Your task to perform on an android device: Set the phone to "Do not disturb". Image 0: 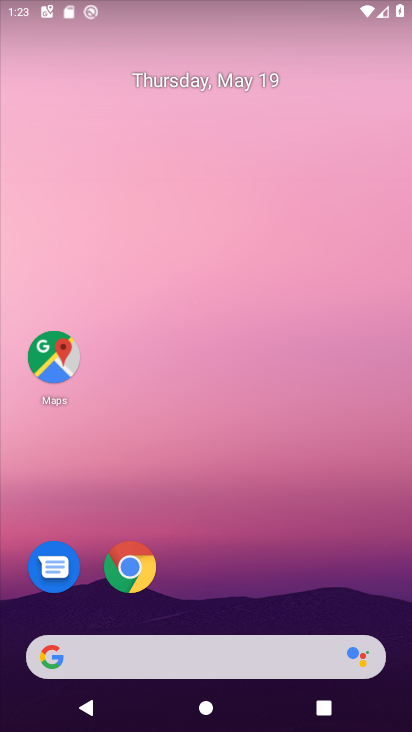
Step 0: drag from (179, 518) to (194, 73)
Your task to perform on an android device: Set the phone to "Do not disturb". Image 1: 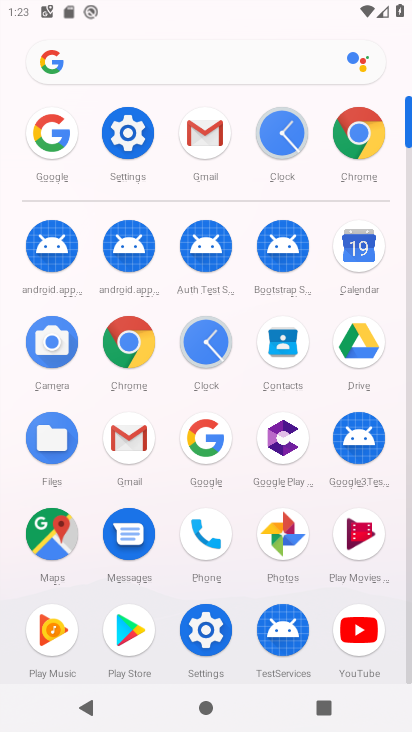
Step 1: click (134, 136)
Your task to perform on an android device: Set the phone to "Do not disturb". Image 2: 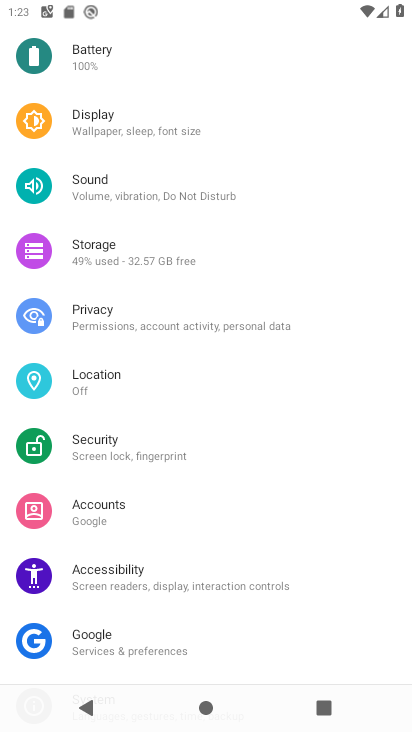
Step 2: click (133, 121)
Your task to perform on an android device: Set the phone to "Do not disturb". Image 3: 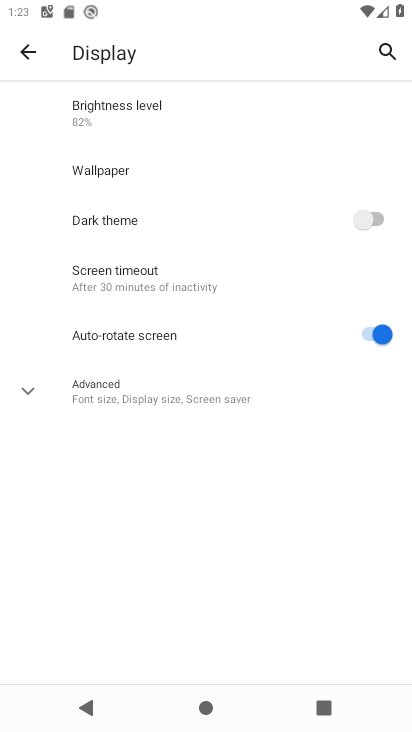
Step 3: click (96, 384)
Your task to perform on an android device: Set the phone to "Do not disturb". Image 4: 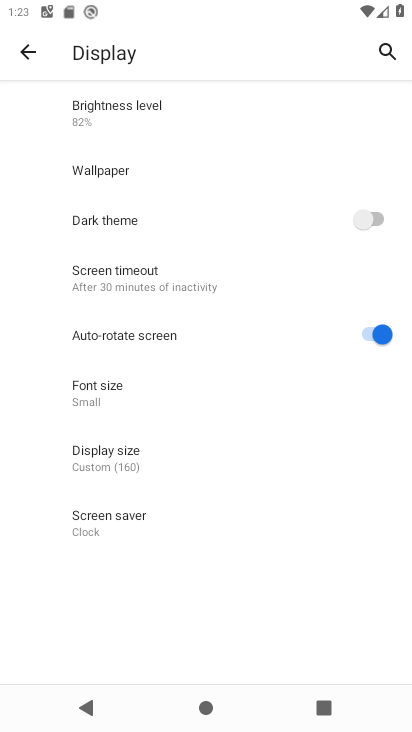
Step 4: press back button
Your task to perform on an android device: Set the phone to "Do not disturb". Image 5: 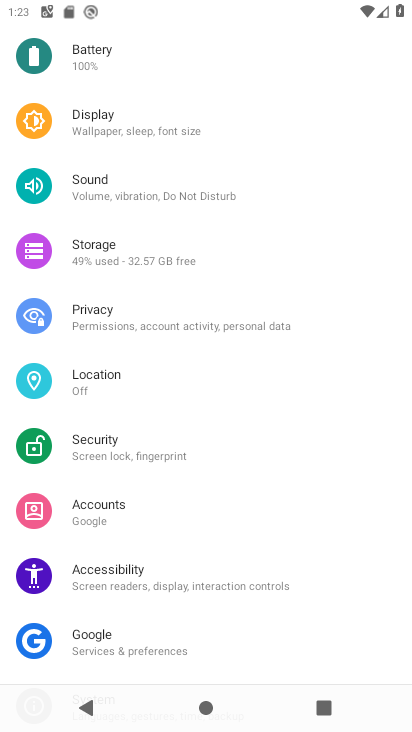
Step 5: drag from (223, 449) to (218, 271)
Your task to perform on an android device: Set the phone to "Do not disturb". Image 6: 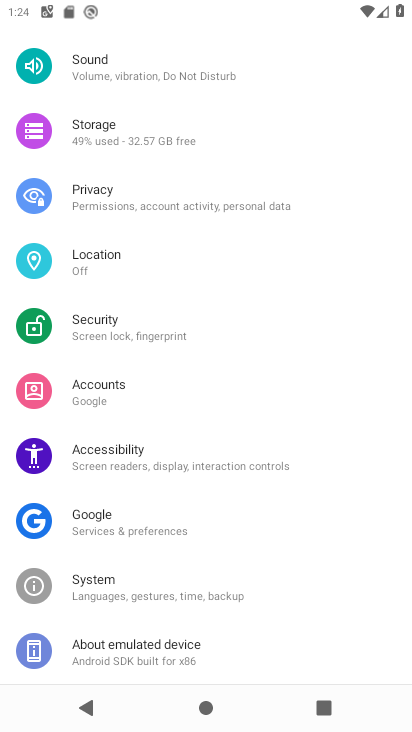
Step 6: drag from (277, 427) to (306, 160)
Your task to perform on an android device: Set the phone to "Do not disturb". Image 7: 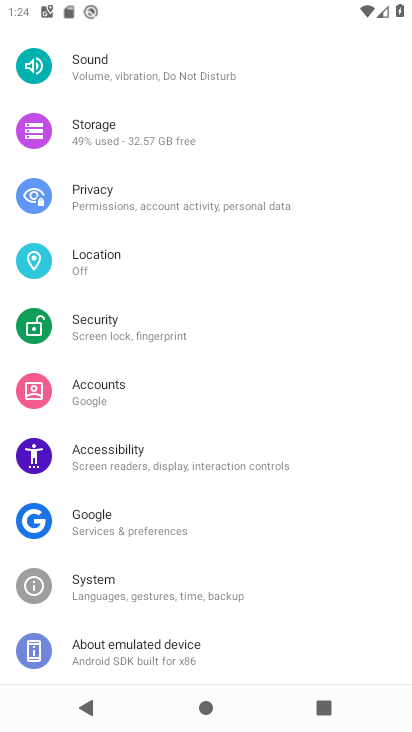
Step 7: drag from (288, 539) to (285, 63)
Your task to perform on an android device: Set the phone to "Do not disturb". Image 8: 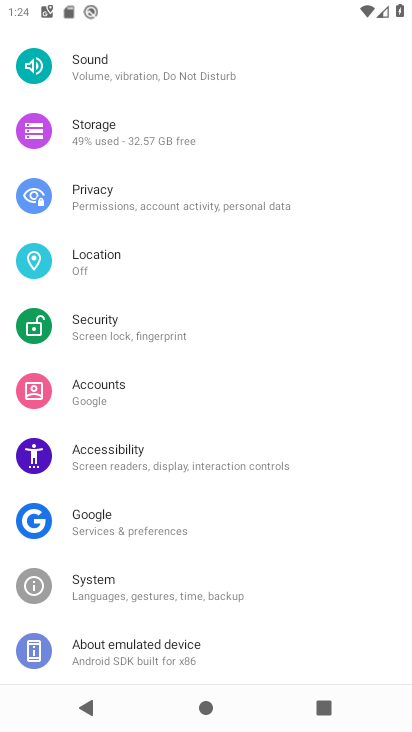
Step 8: drag from (256, 109) to (179, 473)
Your task to perform on an android device: Set the phone to "Do not disturb". Image 9: 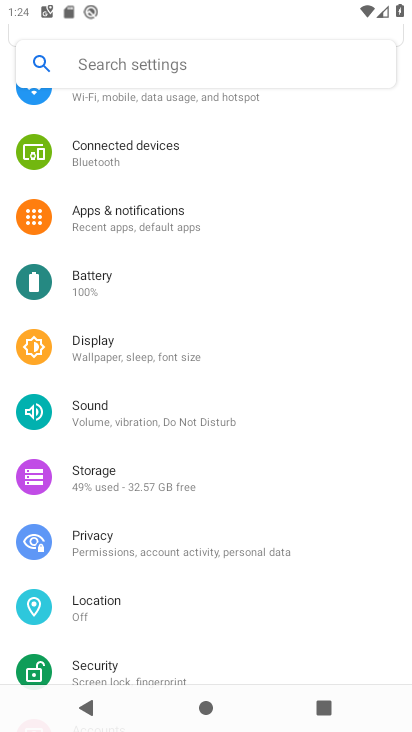
Step 9: click (180, 362)
Your task to perform on an android device: Set the phone to "Do not disturb". Image 10: 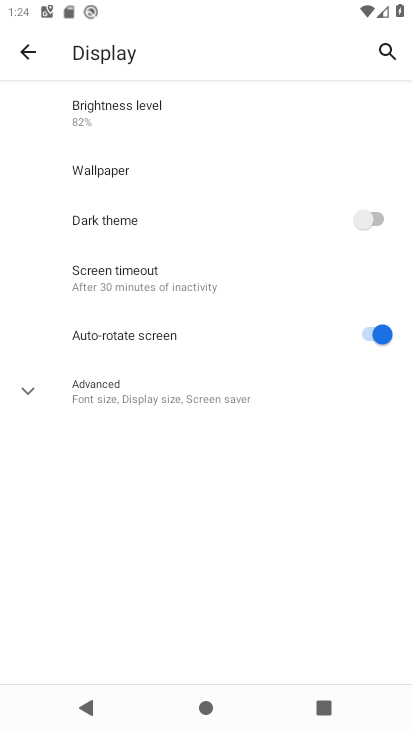
Step 10: press back button
Your task to perform on an android device: Set the phone to "Do not disturb". Image 11: 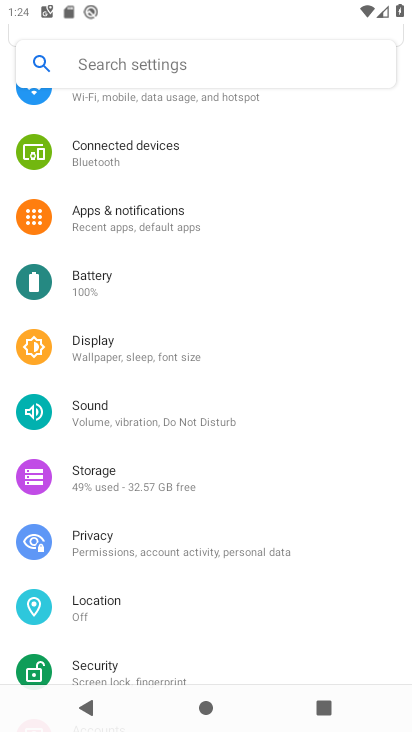
Step 11: click (116, 433)
Your task to perform on an android device: Set the phone to "Do not disturb". Image 12: 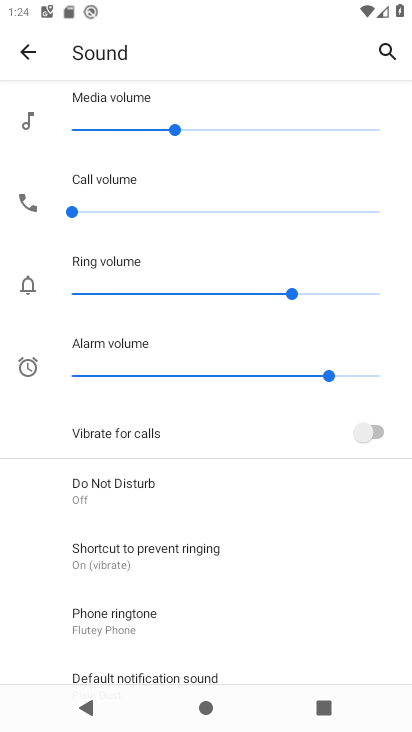
Step 12: click (116, 483)
Your task to perform on an android device: Set the phone to "Do not disturb". Image 13: 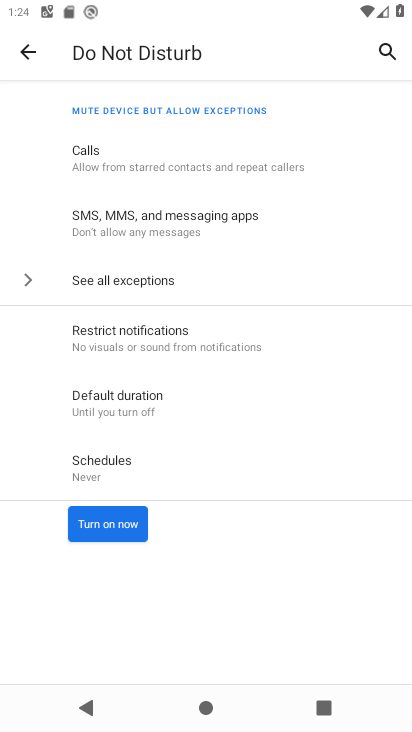
Step 13: click (105, 519)
Your task to perform on an android device: Set the phone to "Do not disturb". Image 14: 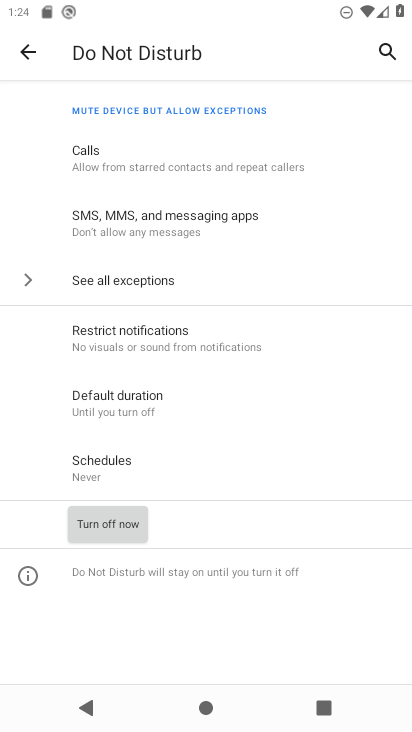
Step 14: task complete